Your task to perform on an android device: Search for seafood restaurants on Google Maps Image 0: 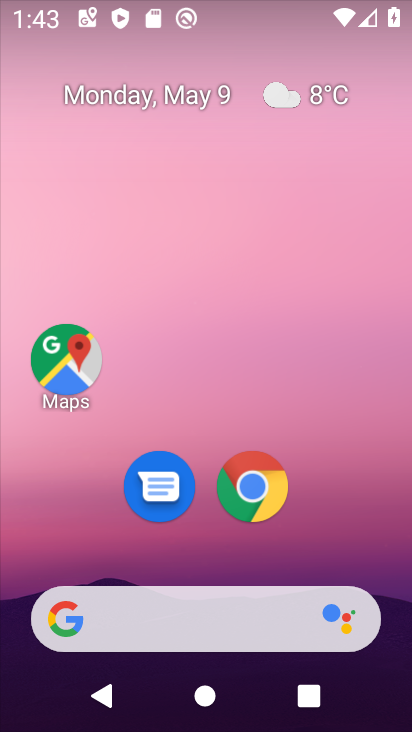
Step 0: click (86, 373)
Your task to perform on an android device: Search for seafood restaurants on Google Maps Image 1: 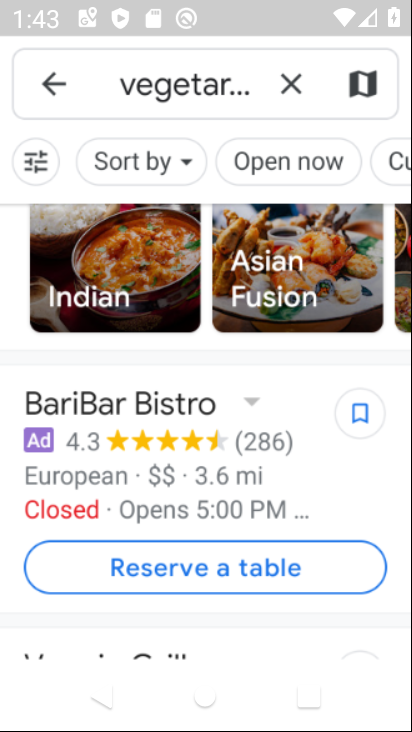
Step 1: click (86, 373)
Your task to perform on an android device: Search for seafood restaurants on Google Maps Image 2: 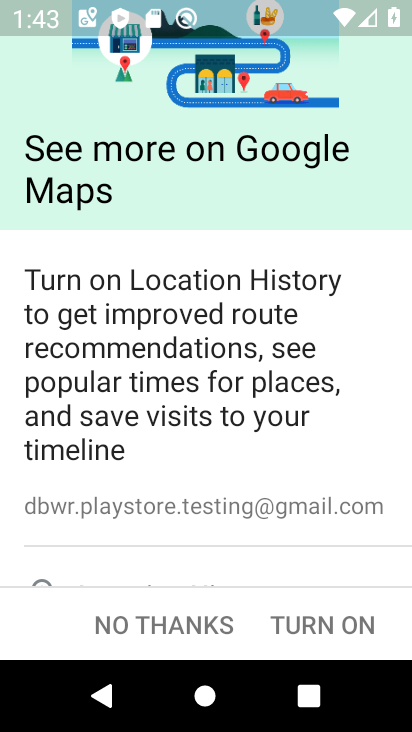
Step 2: click (145, 625)
Your task to perform on an android device: Search for seafood restaurants on Google Maps Image 3: 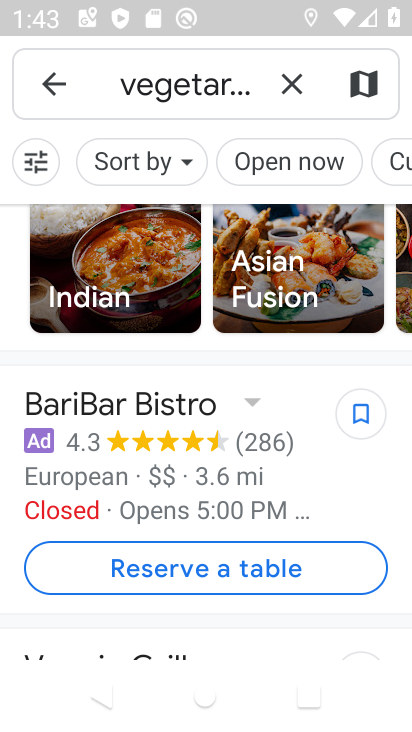
Step 3: task complete